Your task to perform on an android device: Search for Italian restaurants on Maps Image 0: 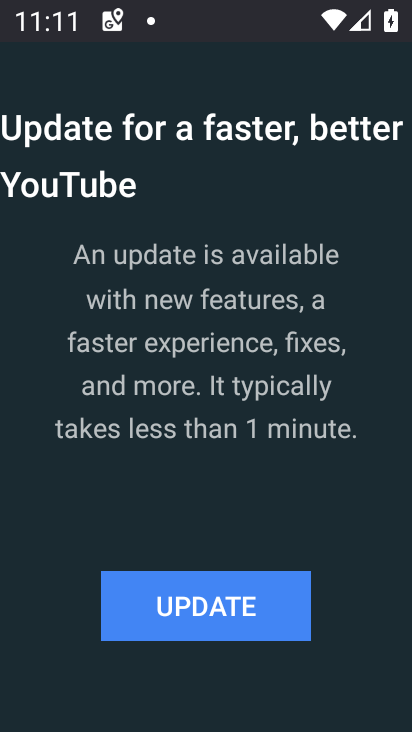
Step 0: press home button
Your task to perform on an android device: Search for Italian restaurants on Maps Image 1: 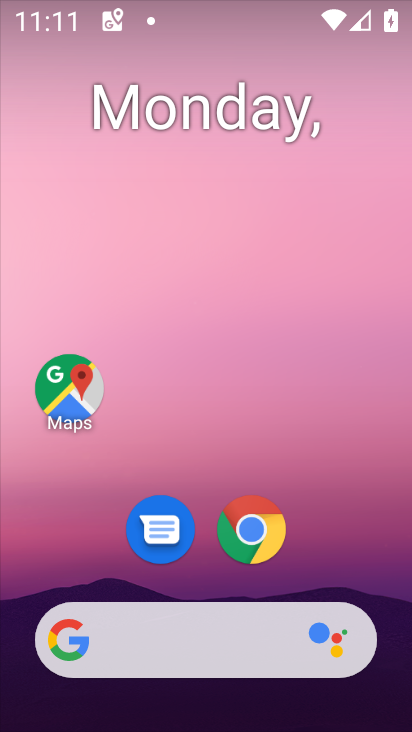
Step 1: drag from (242, 675) to (245, 274)
Your task to perform on an android device: Search for Italian restaurants on Maps Image 2: 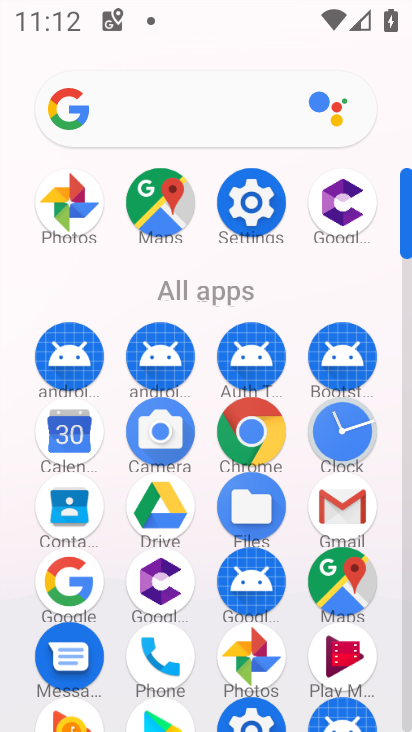
Step 2: click (166, 177)
Your task to perform on an android device: Search for Italian restaurants on Maps Image 3: 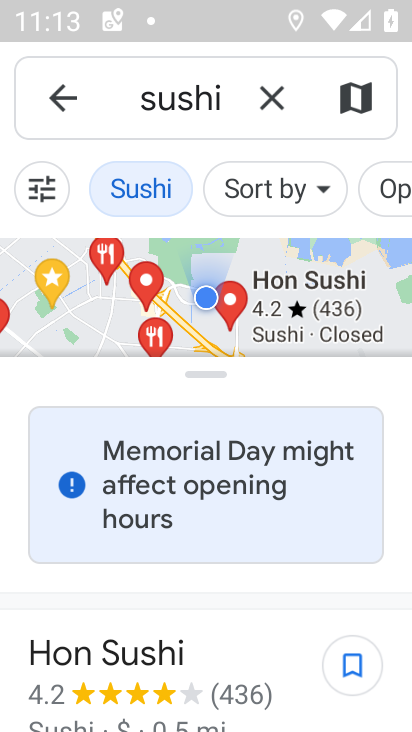
Step 3: click (267, 92)
Your task to perform on an android device: Search for Italian restaurants on Maps Image 4: 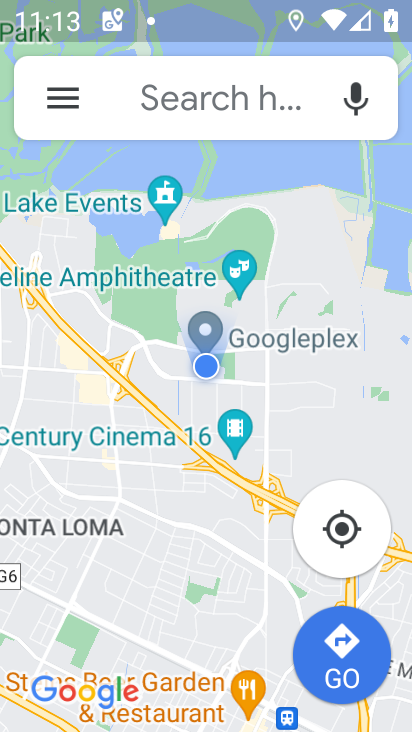
Step 4: click (217, 87)
Your task to perform on an android device: Search for Italian restaurants on Maps Image 5: 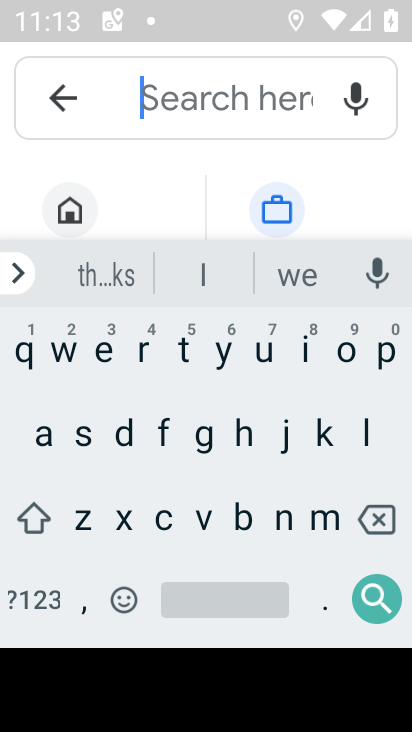
Step 5: click (301, 359)
Your task to perform on an android device: Search for Italian restaurants on Maps Image 6: 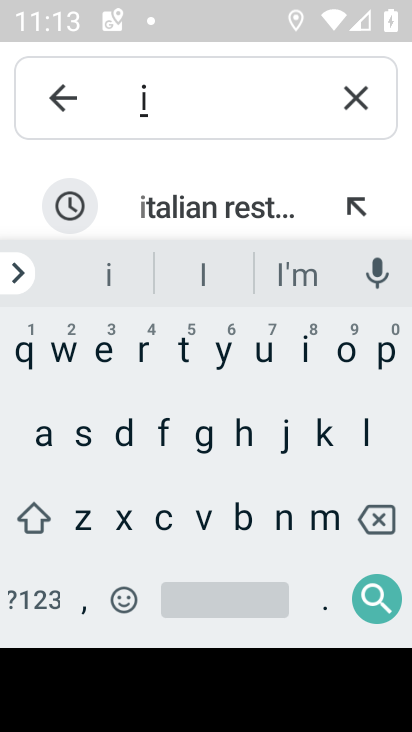
Step 6: click (227, 198)
Your task to perform on an android device: Search for Italian restaurants on Maps Image 7: 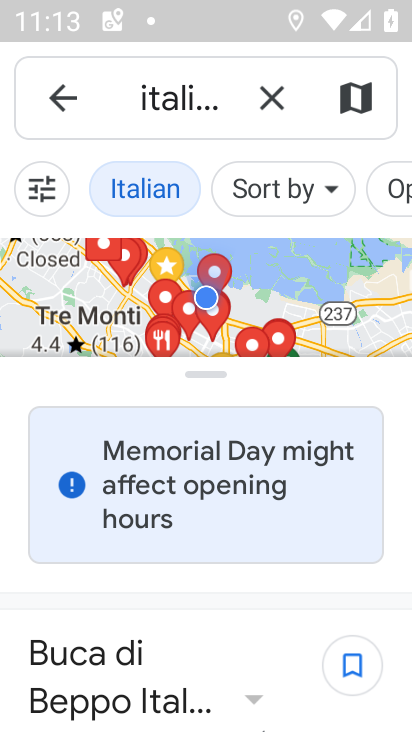
Step 7: task complete